Your task to perform on an android device: open sync settings in chrome Image 0: 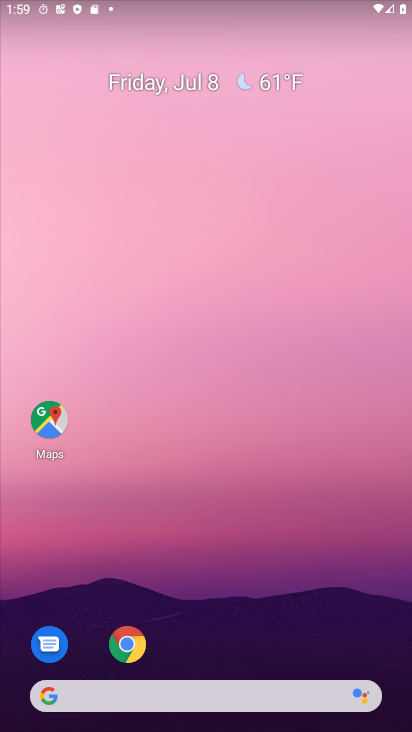
Step 0: click (123, 650)
Your task to perform on an android device: open sync settings in chrome Image 1: 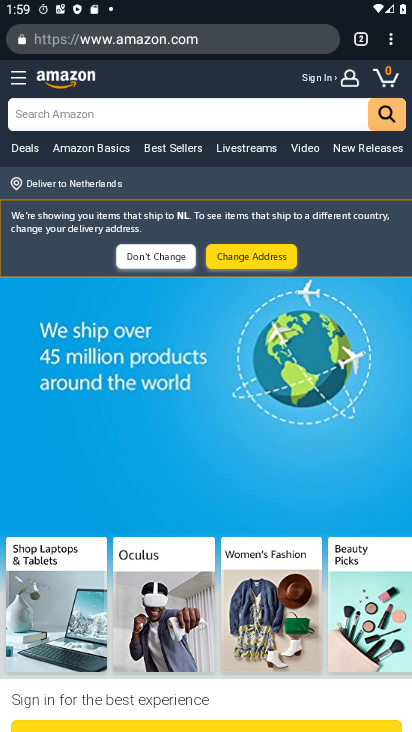
Step 1: click (392, 39)
Your task to perform on an android device: open sync settings in chrome Image 2: 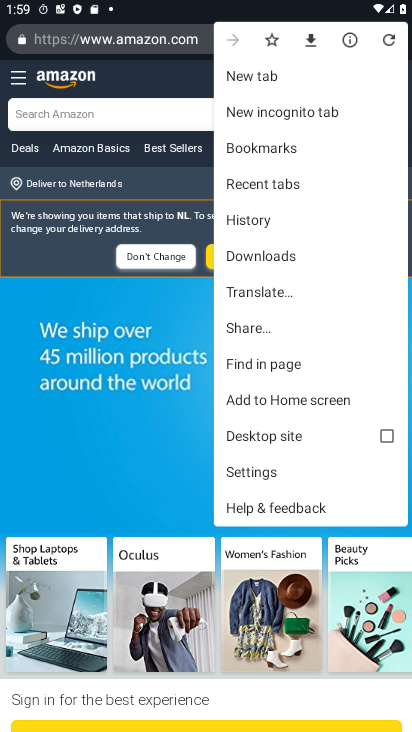
Step 2: click (269, 471)
Your task to perform on an android device: open sync settings in chrome Image 3: 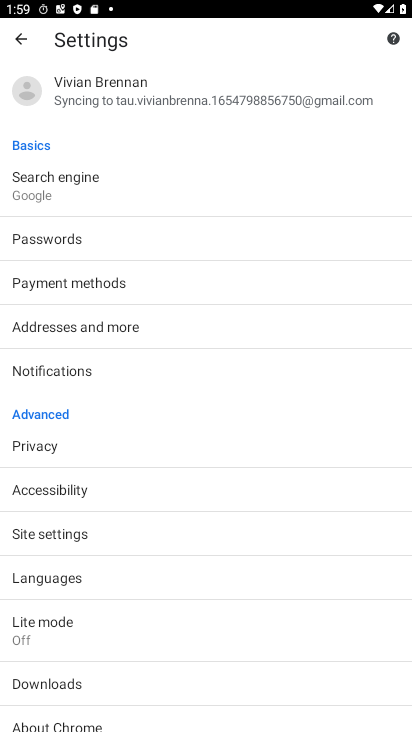
Step 3: click (140, 77)
Your task to perform on an android device: open sync settings in chrome Image 4: 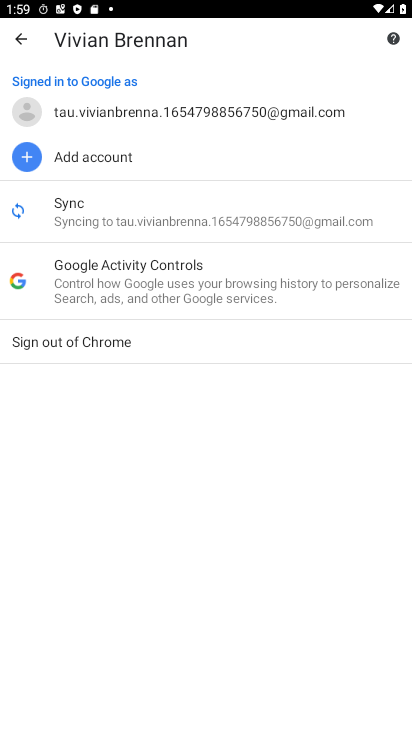
Step 4: click (76, 219)
Your task to perform on an android device: open sync settings in chrome Image 5: 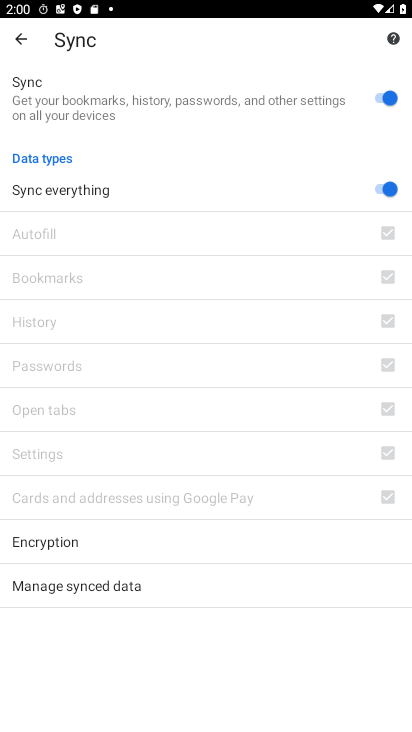
Step 5: click (225, 387)
Your task to perform on an android device: open sync settings in chrome Image 6: 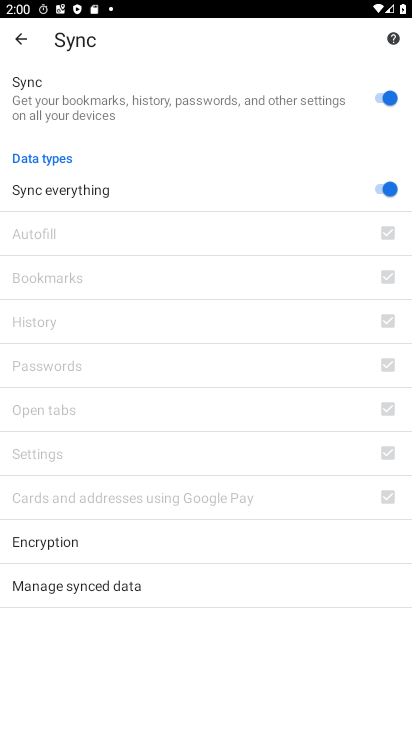
Step 6: task complete